Your task to perform on an android device: toggle data saver in the chrome app Image 0: 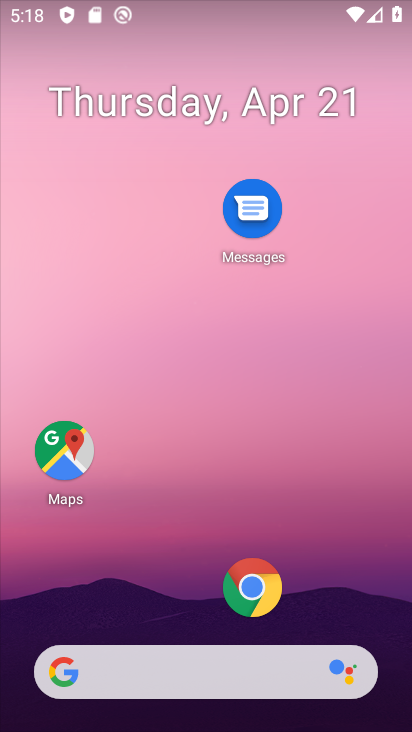
Step 0: click (255, 583)
Your task to perform on an android device: toggle data saver in the chrome app Image 1: 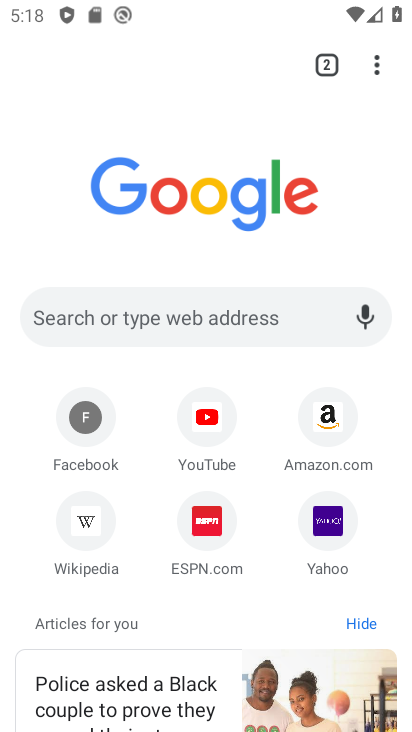
Step 1: click (377, 74)
Your task to perform on an android device: toggle data saver in the chrome app Image 2: 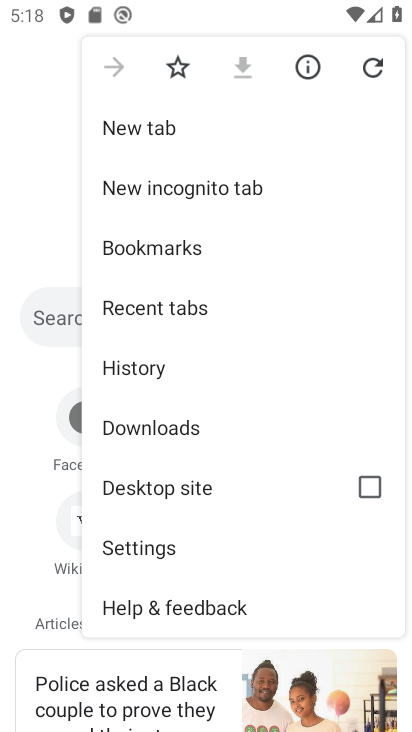
Step 2: click (201, 539)
Your task to perform on an android device: toggle data saver in the chrome app Image 3: 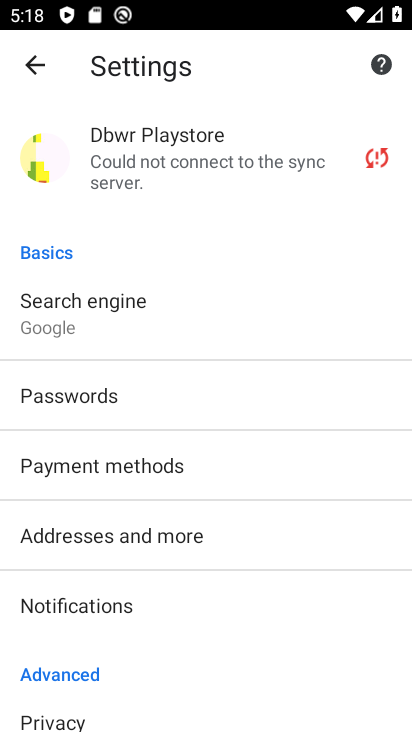
Step 3: drag from (183, 619) to (252, 99)
Your task to perform on an android device: toggle data saver in the chrome app Image 4: 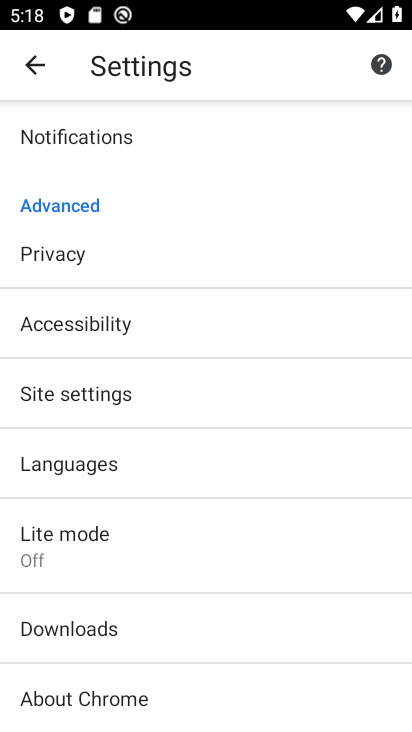
Step 4: click (100, 544)
Your task to perform on an android device: toggle data saver in the chrome app Image 5: 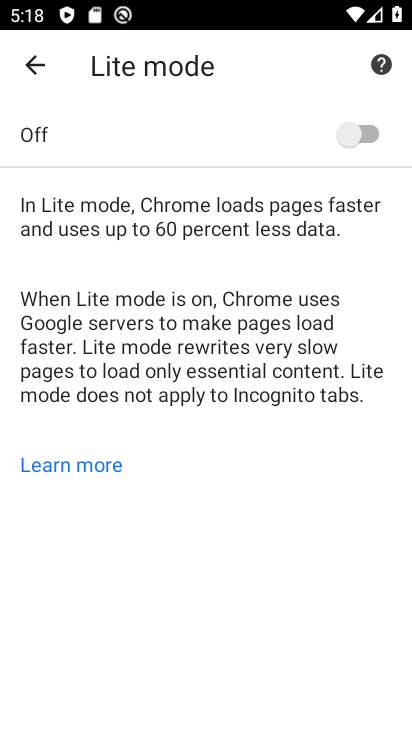
Step 5: click (358, 134)
Your task to perform on an android device: toggle data saver in the chrome app Image 6: 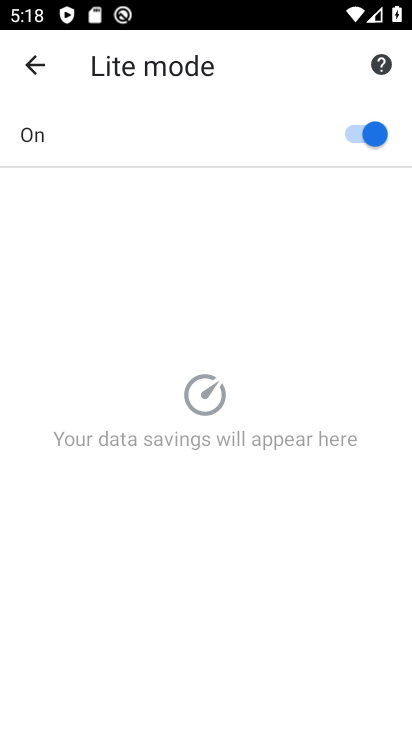
Step 6: task complete